Your task to perform on an android device: Open sound settings Image 0: 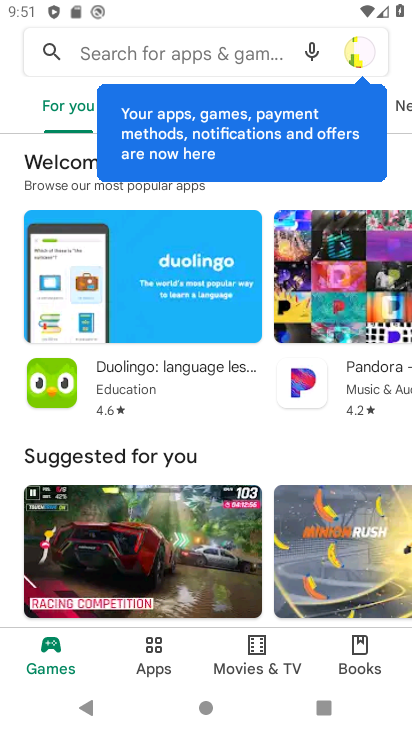
Step 0: press home button
Your task to perform on an android device: Open sound settings Image 1: 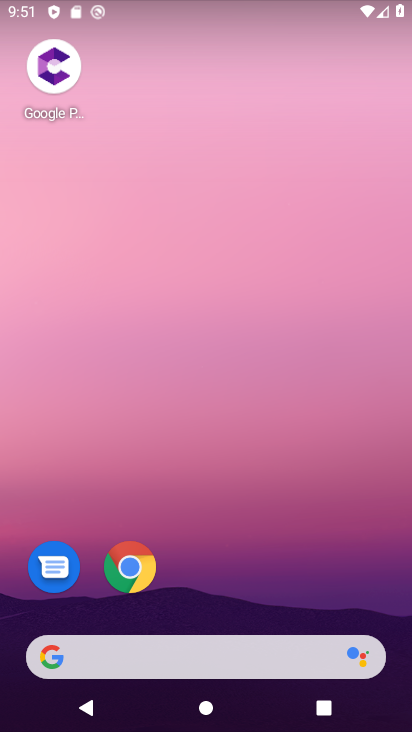
Step 1: drag from (175, 482) to (318, 157)
Your task to perform on an android device: Open sound settings Image 2: 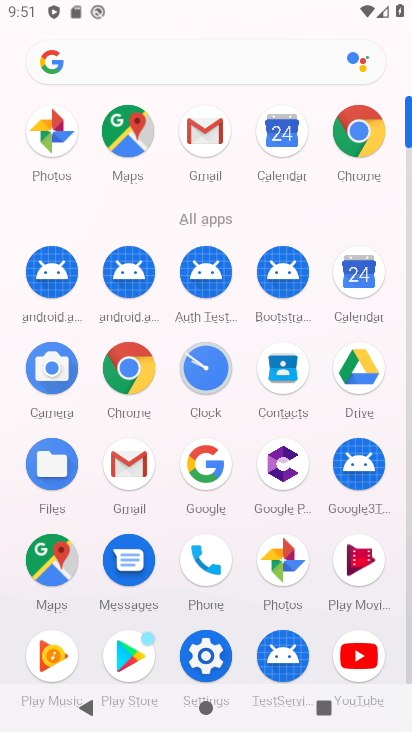
Step 2: click (193, 655)
Your task to perform on an android device: Open sound settings Image 3: 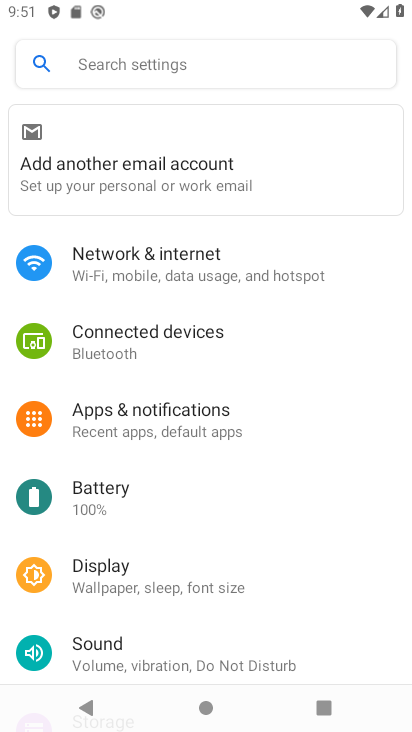
Step 3: click (241, 650)
Your task to perform on an android device: Open sound settings Image 4: 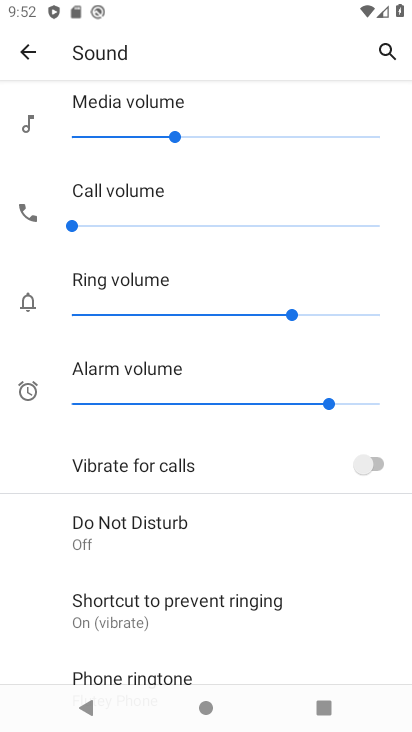
Step 4: task complete